Your task to perform on an android device: toggle javascript in the chrome app Image 0: 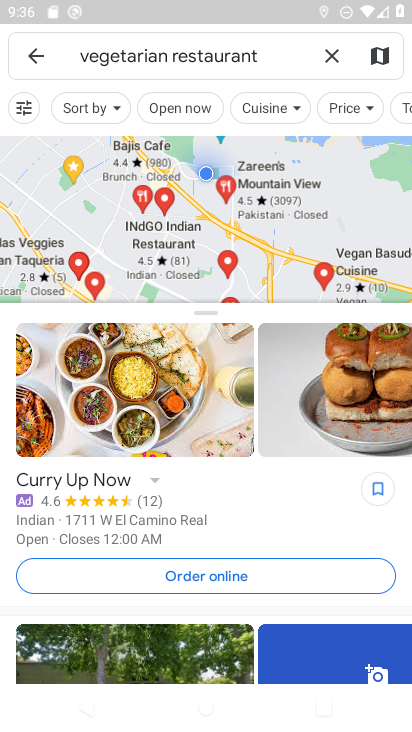
Step 0: press home button
Your task to perform on an android device: toggle javascript in the chrome app Image 1: 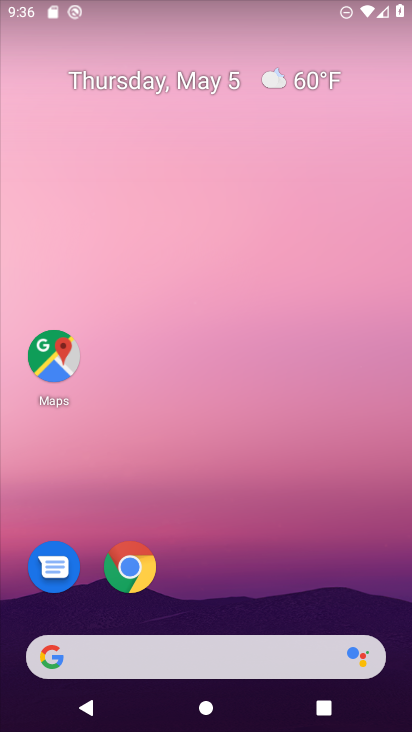
Step 1: click (125, 568)
Your task to perform on an android device: toggle javascript in the chrome app Image 2: 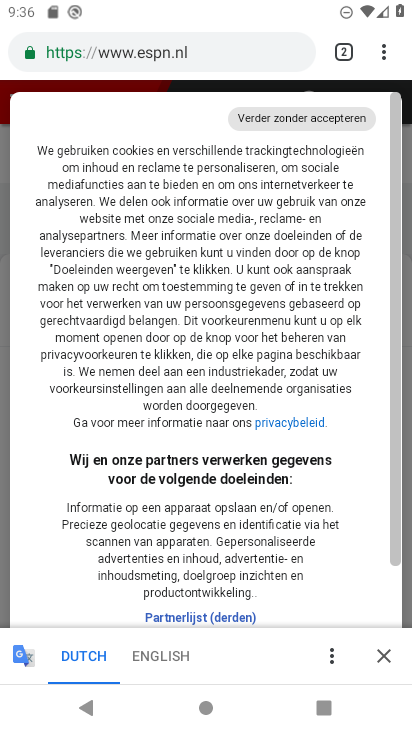
Step 2: drag from (386, 51) to (228, 574)
Your task to perform on an android device: toggle javascript in the chrome app Image 3: 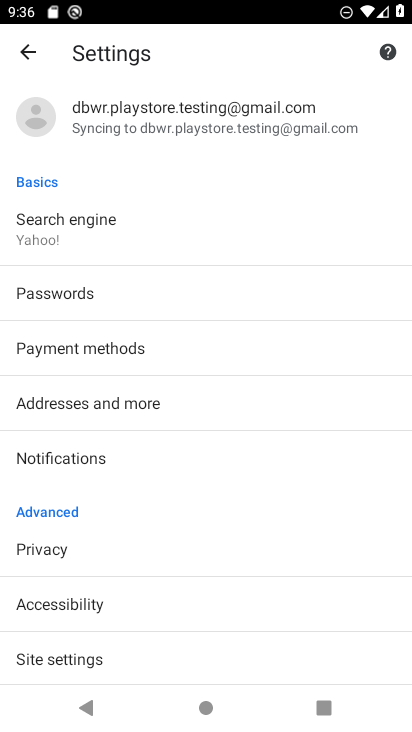
Step 3: click (84, 663)
Your task to perform on an android device: toggle javascript in the chrome app Image 4: 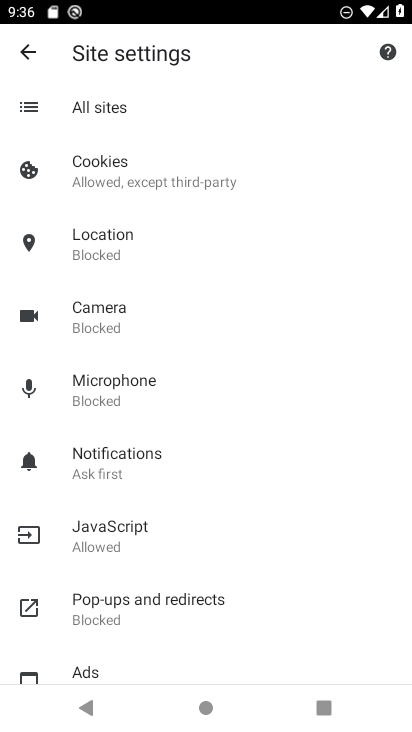
Step 4: click (111, 525)
Your task to perform on an android device: toggle javascript in the chrome app Image 5: 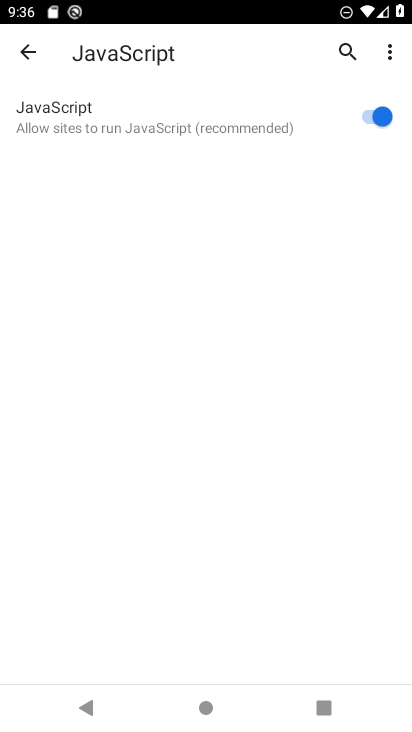
Step 5: click (366, 118)
Your task to perform on an android device: toggle javascript in the chrome app Image 6: 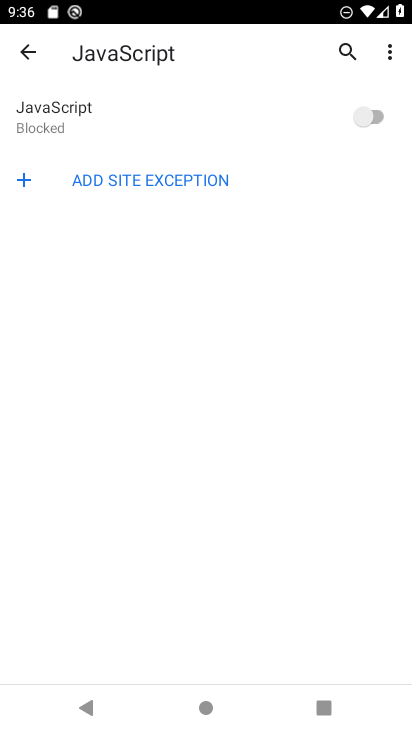
Step 6: task complete